Your task to perform on an android device: Open notification settings Image 0: 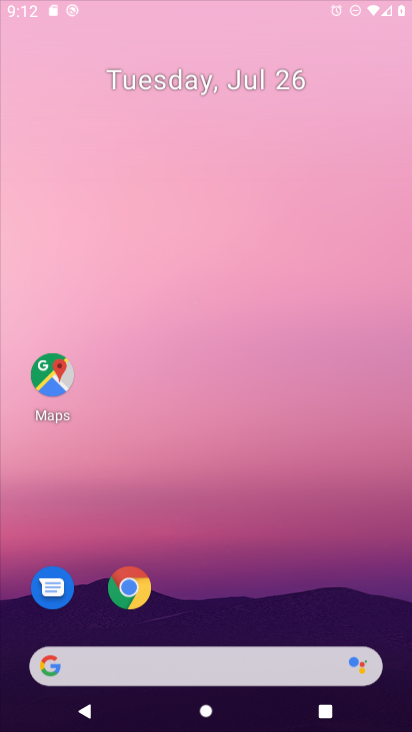
Step 0: press home button
Your task to perform on an android device: Open notification settings Image 1: 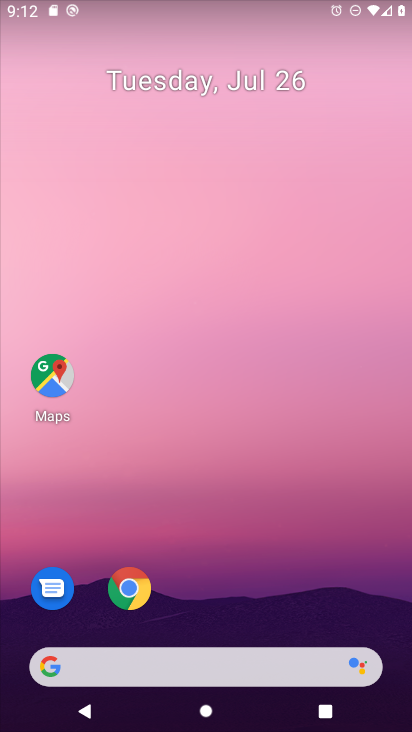
Step 1: drag from (263, 626) to (270, 125)
Your task to perform on an android device: Open notification settings Image 2: 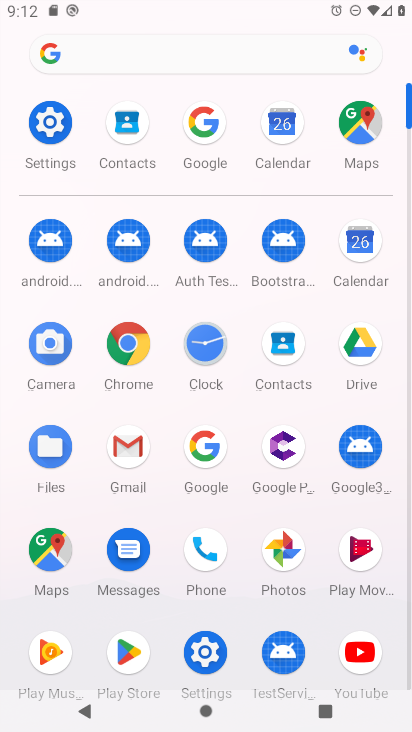
Step 2: click (55, 139)
Your task to perform on an android device: Open notification settings Image 3: 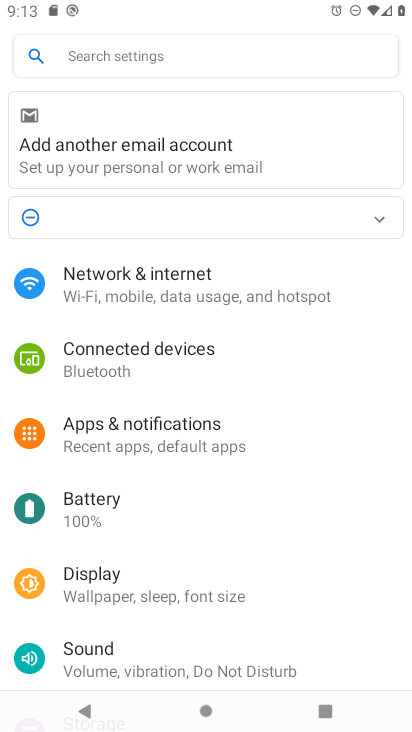
Step 3: click (152, 441)
Your task to perform on an android device: Open notification settings Image 4: 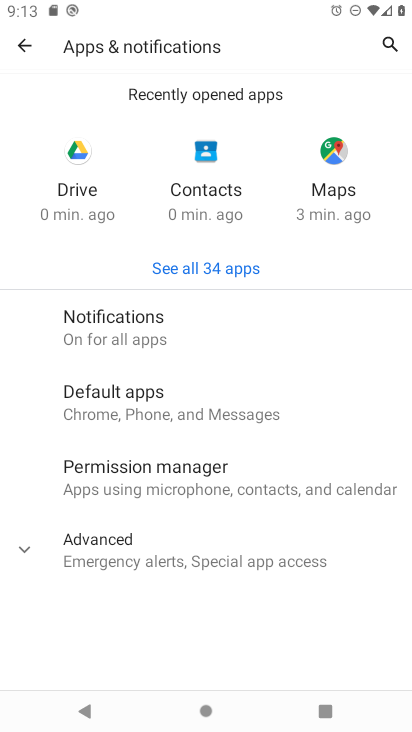
Step 4: click (119, 339)
Your task to perform on an android device: Open notification settings Image 5: 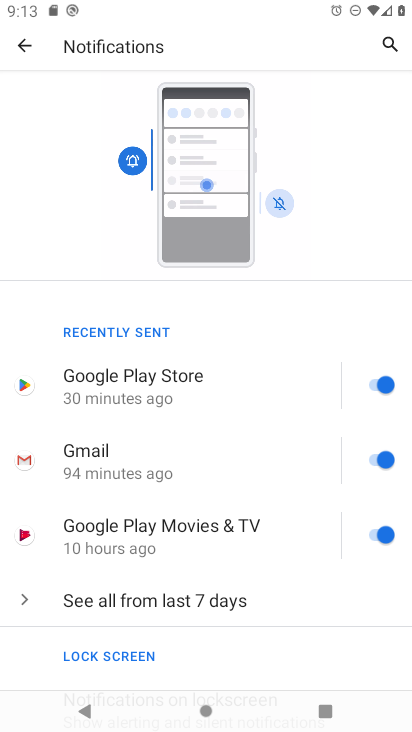
Step 5: task complete